Your task to perform on an android device: Show me popular games on the Play Store Image 0: 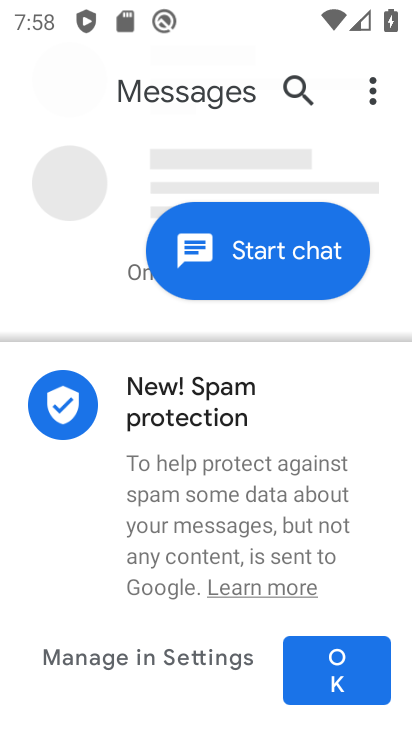
Step 0: click (252, 540)
Your task to perform on an android device: Show me popular games on the Play Store Image 1: 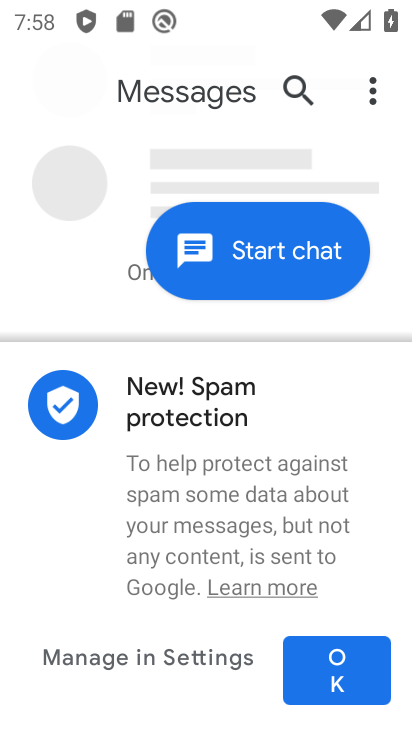
Step 1: press home button
Your task to perform on an android device: Show me popular games on the Play Store Image 2: 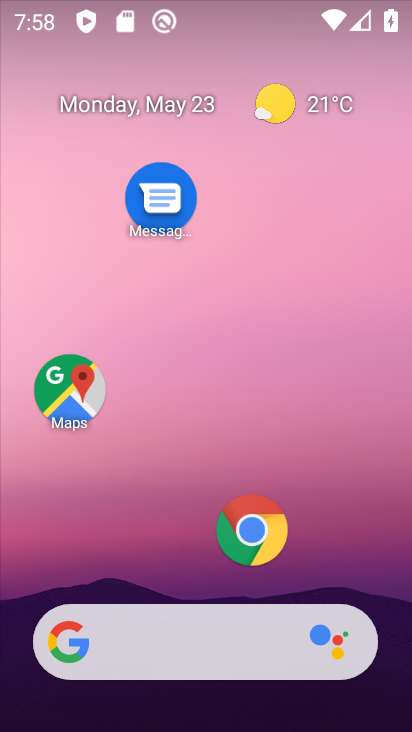
Step 2: drag from (188, 578) to (193, 160)
Your task to perform on an android device: Show me popular games on the Play Store Image 3: 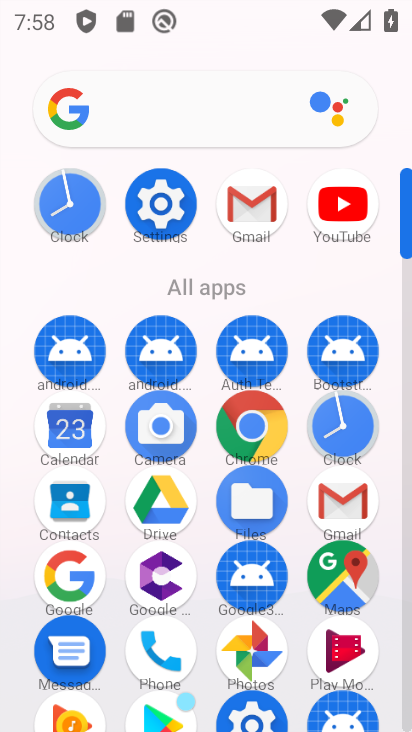
Step 3: click (156, 712)
Your task to perform on an android device: Show me popular games on the Play Store Image 4: 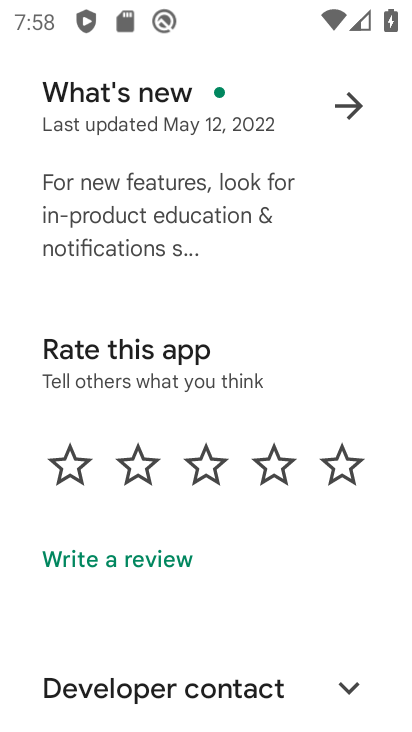
Step 4: drag from (156, 635) to (275, 176)
Your task to perform on an android device: Show me popular games on the Play Store Image 5: 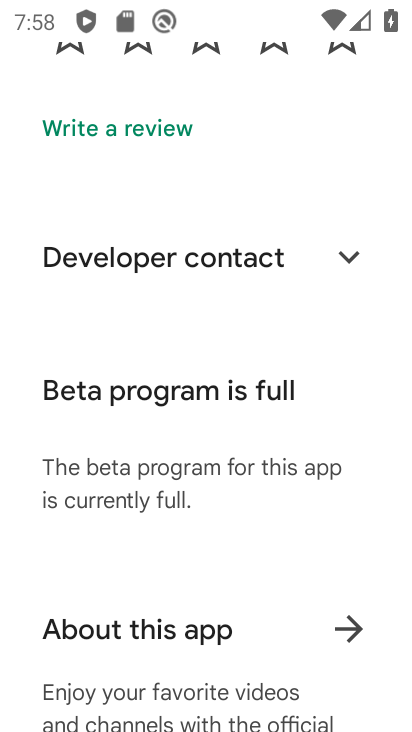
Step 5: drag from (164, 674) to (289, 252)
Your task to perform on an android device: Show me popular games on the Play Store Image 6: 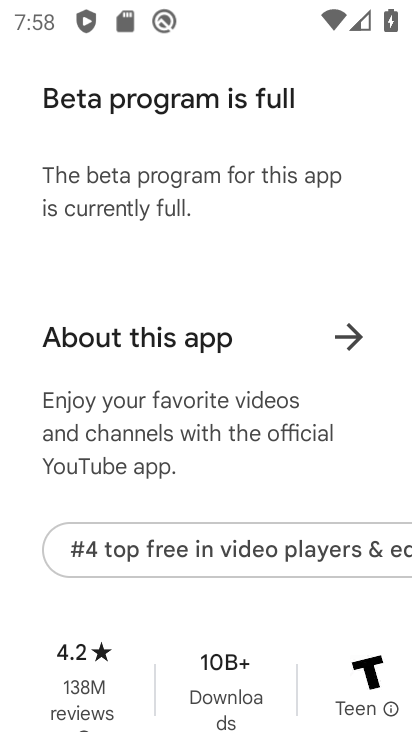
Step 6: drag from (159, 626) to (189, 232)
Your task to perform on an android device: Show me popular games on the Play Store Image 7: 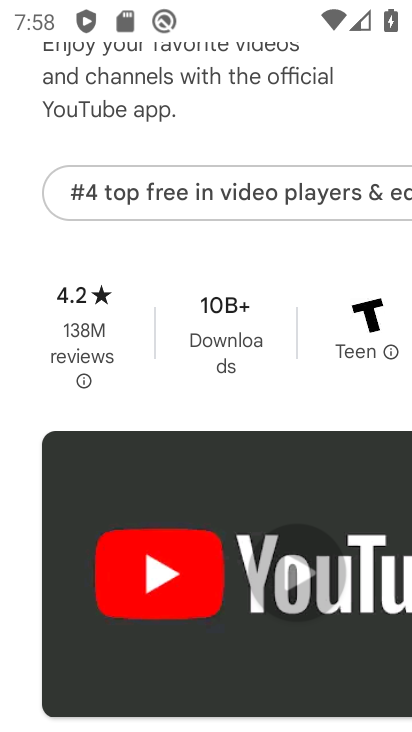
Step 7: drag from (344, 114) to (383, 704)
Your task to perform on an android device: Show me popular games on the Play Store Image 8: 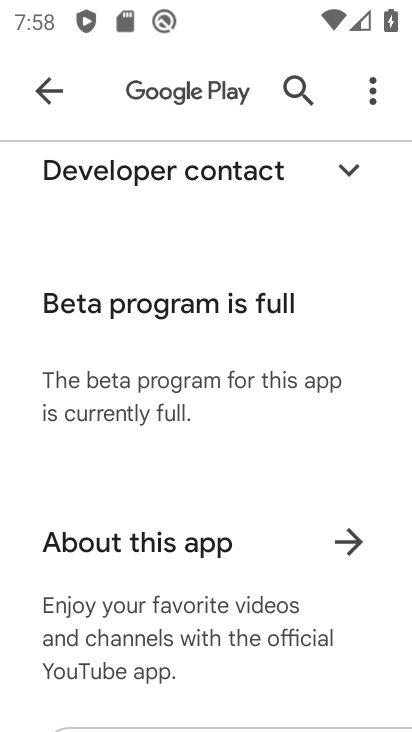
Step 8: click (71, 101)
Your task to perform on an android device: Show me popular games on the Play Store Image 9: 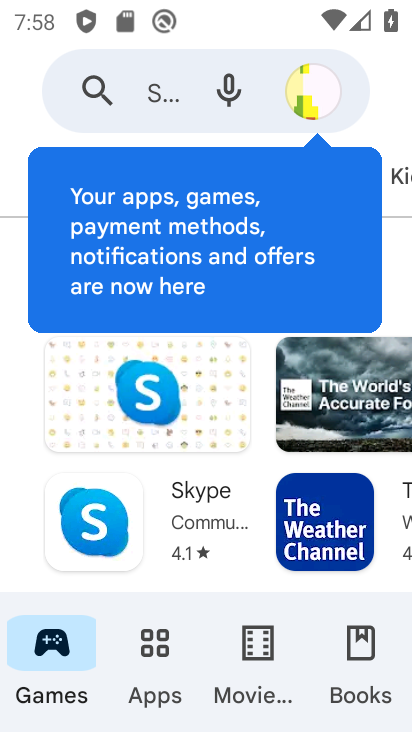
Step 9: click (163, 659)
Your task to perform on an android device: Show me popular games on the Play Store Image 10: 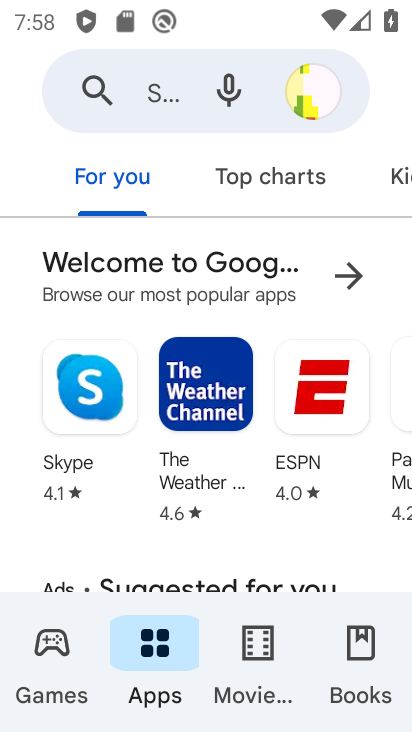
Step 10: click (39, 649)
Your task to perform on an android device: Show me popular games on the Play Store Image 11: 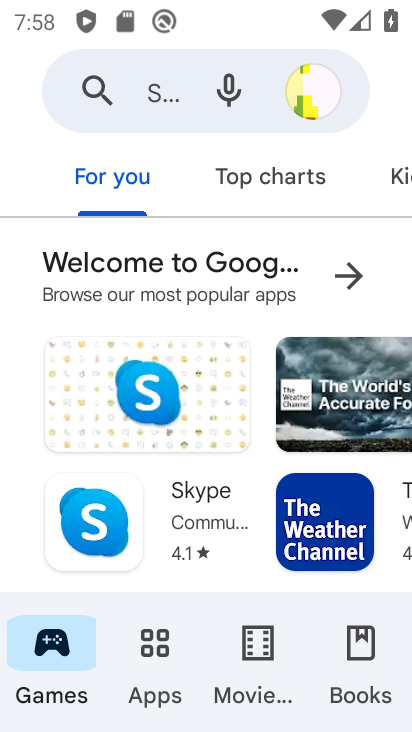
Step 11: click (297, 192)
Your task to perform on an android device: Show me popular games on the Play Store Image 12: 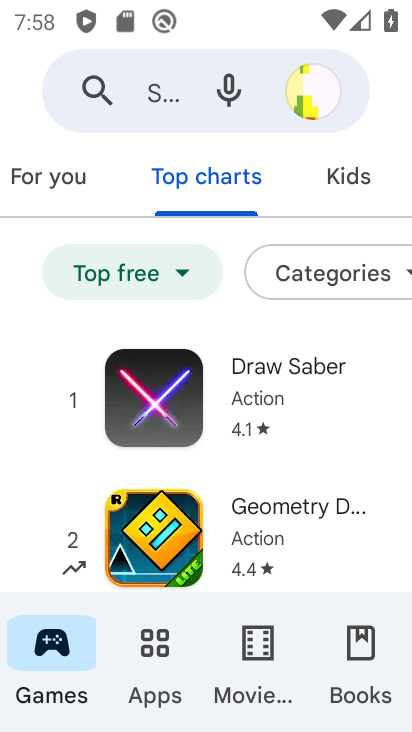
Step 12: task complete